Your task to perform on an android device: Search for vegetarian restaurants on Maps Image 0: 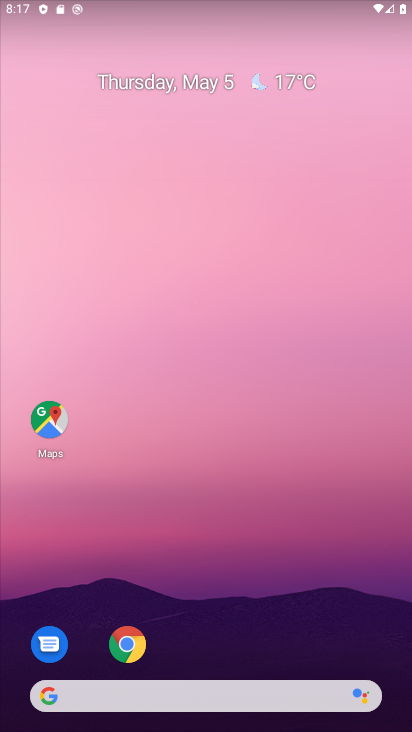
Step 0: click (223, 75)
Your task to perform on an android device: Search for vegetarian restaurants on Maps Image 1: 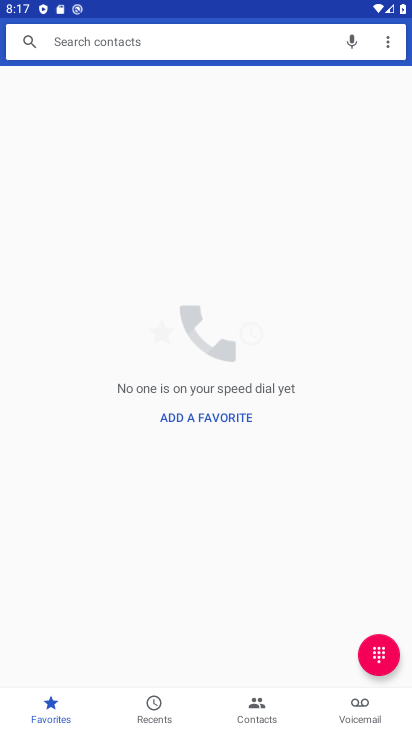
Step 1: press home button
Your task to perform on an android device: Search for vegetarian restaurants on Maps Image 2: 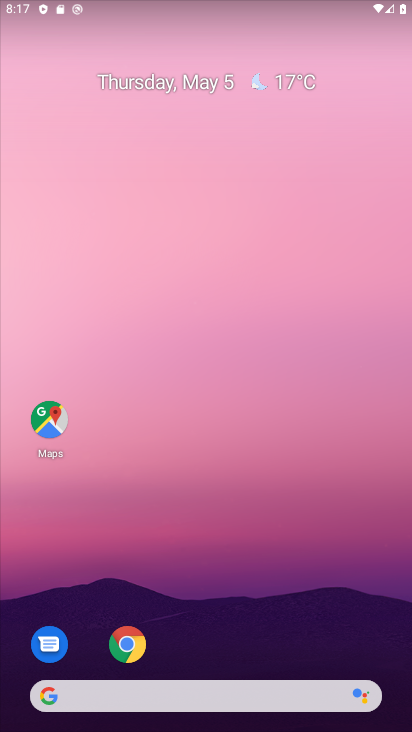
Step 2: click (55, 416)
Your task to perform on an android device: Search for vegetarian restaurants on Maps Image 3: 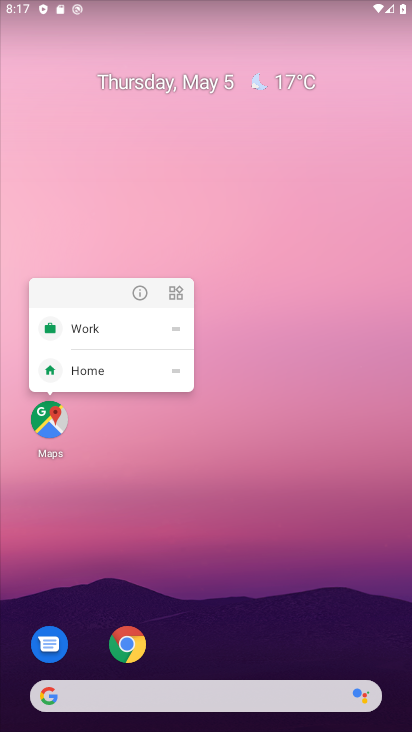
Step 3: click (145, 297)
Your task to perform on an android device: Search for vegetarian restaurants on Maps Image 4: 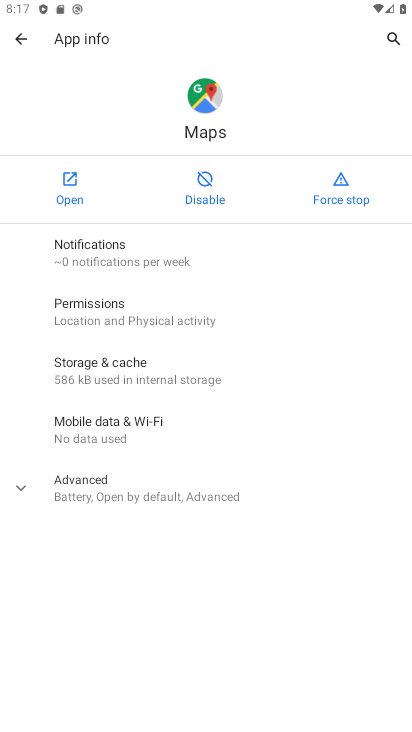
Step 4: click (64, 172)
Your task to perform on an android device: Search for vegetarian restaurants on Maps Image 5: 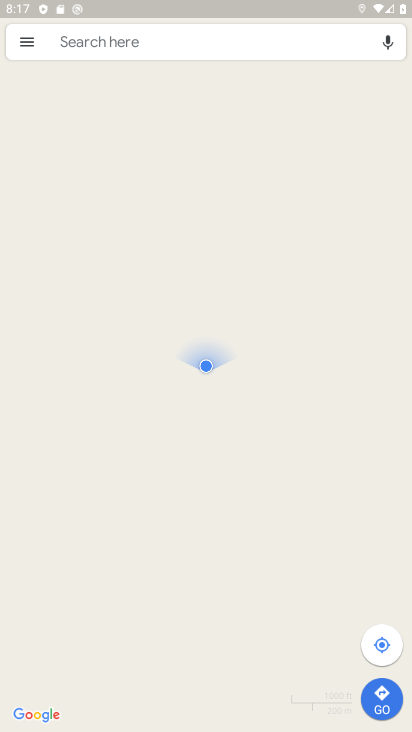
Step 5: click (163, 40)
Your task to perform on an android device: Search for vegetarian restaurants on Maps Image 6: 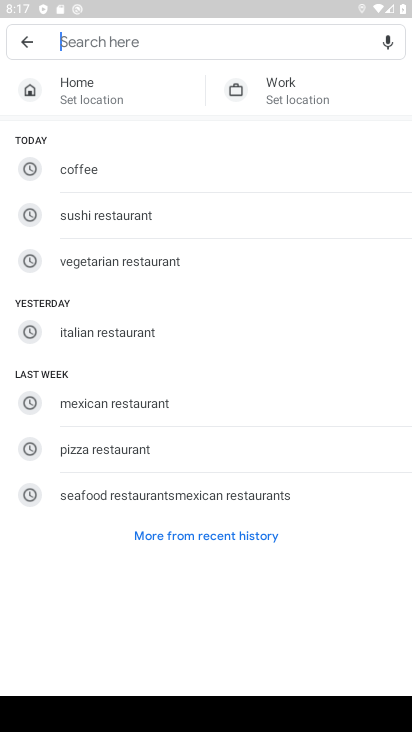
Step 6: type "vegetarian restaurants"
Your task to perform on an android device: Search for vegetarian restaurants on Maps Image 7: 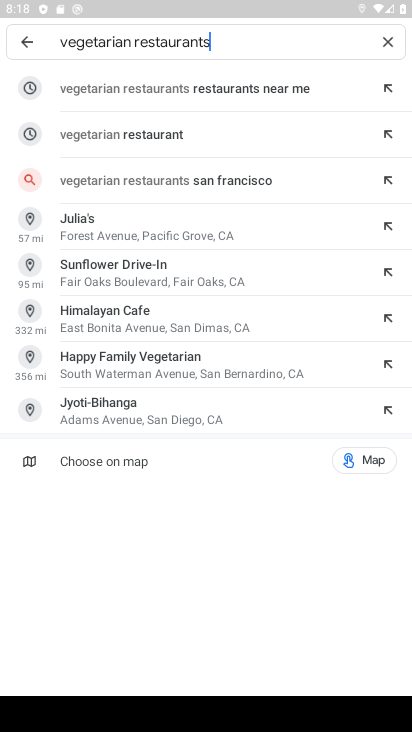
Step 7: click (195, 128)
Your task to perform on an android device: Search for vegetarian restaurants on Maps Image 8: 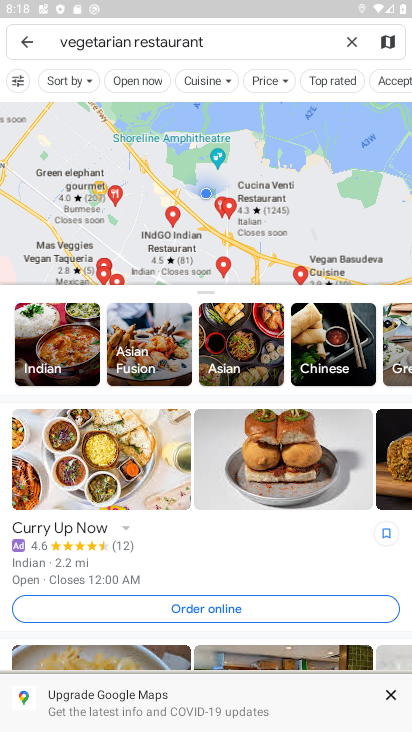
Step 8: task complete